Your task to perform on an android device: Open calendar and show me the second week of next month Image 0: 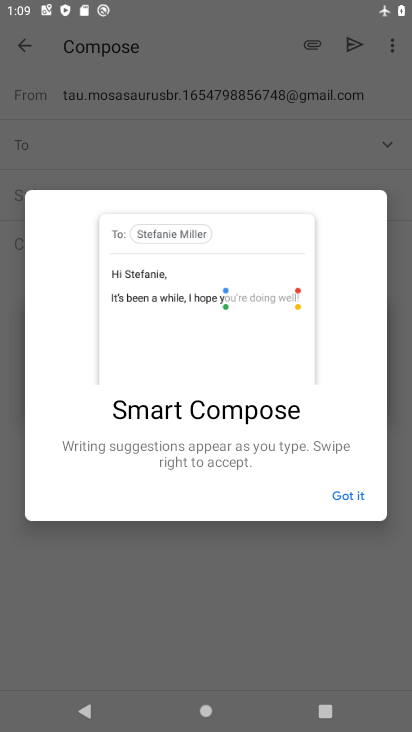
Step 0: press home button
Your task to perform on an android device: Open calendar and show me the second week of next month Image 1: 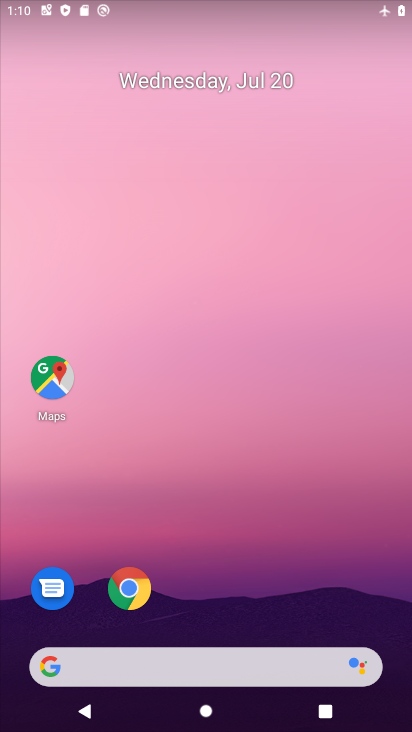
Step 1: drag from (382, 617) to (309, 57)
Your task to perform on an android device: Open calendar and show me the second week of next month Image 2: 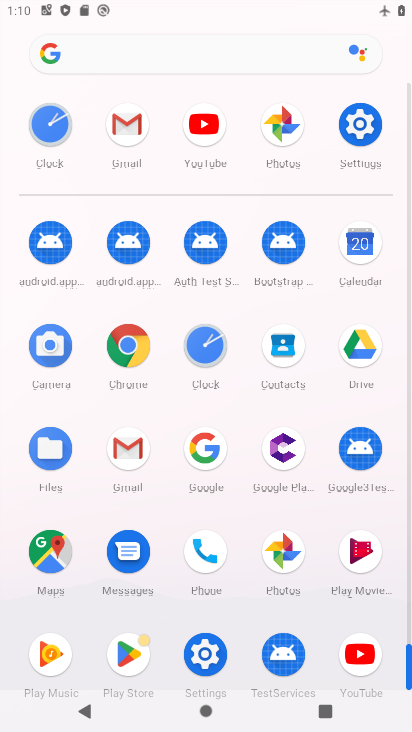
Step 2: click (349, 243)
Your task to perform on an android device: Open calendar and show me the second week of next month Image 3: 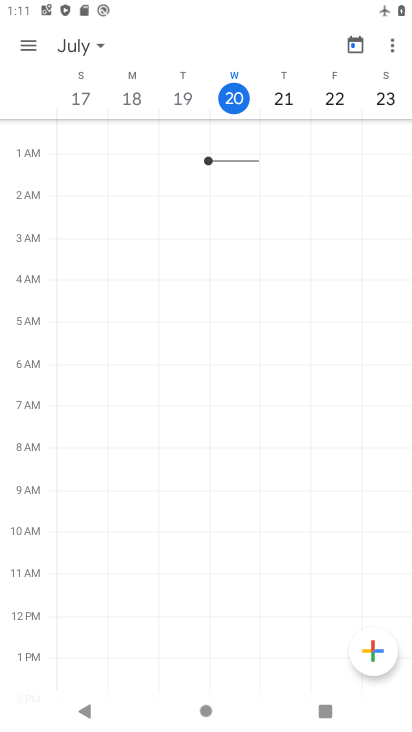
Step 3: click (92, 36)
Your task to perform on an android device: Open calendar and show me the second week of next month Image 4: 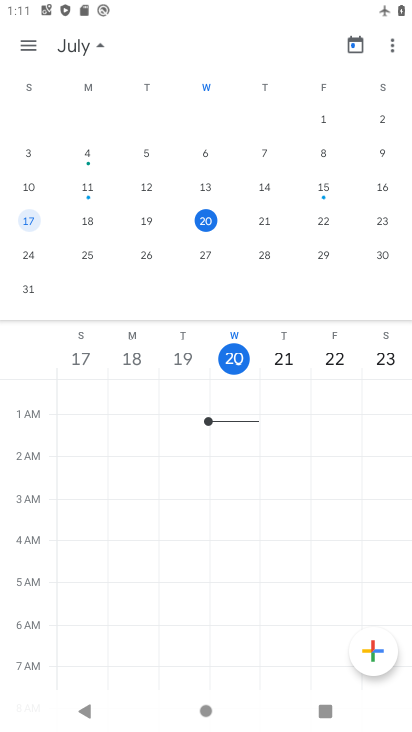
Step 4: drag from (379, 241) to (119, 206)
Your task to perform on an android device: Open calendar and show me the second week of next month Image 5: 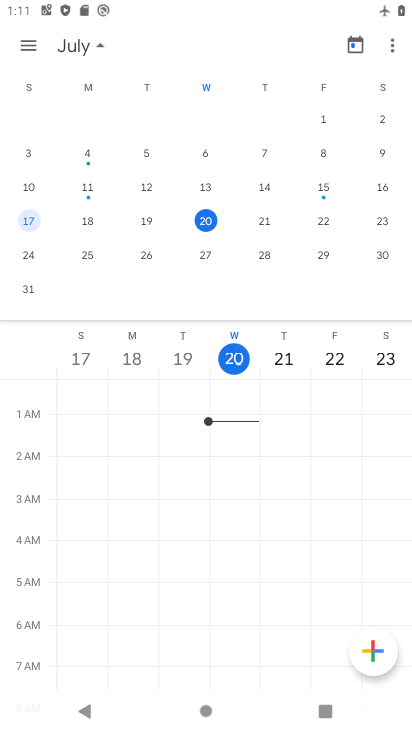
Step 5: drag from (384, 191) to (123, 197)
Your task to perform on an android device: Open calendar and show me the second week of next month Image 6: 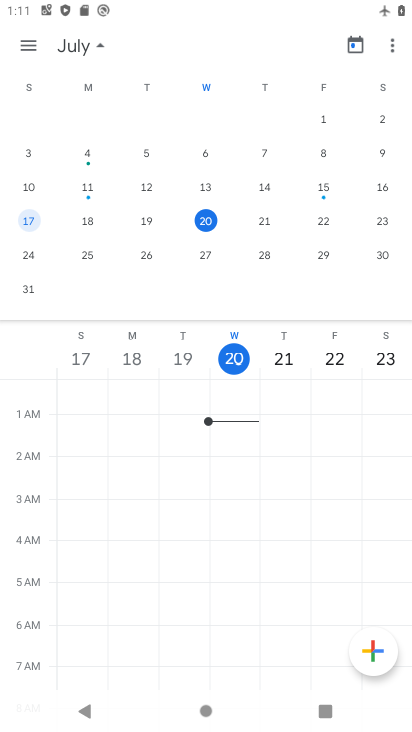
Step 6: drag from (398, 187) to (78, 176)
Your task to perform on an android device: Open calendar and show me the second week of next month Image 7: 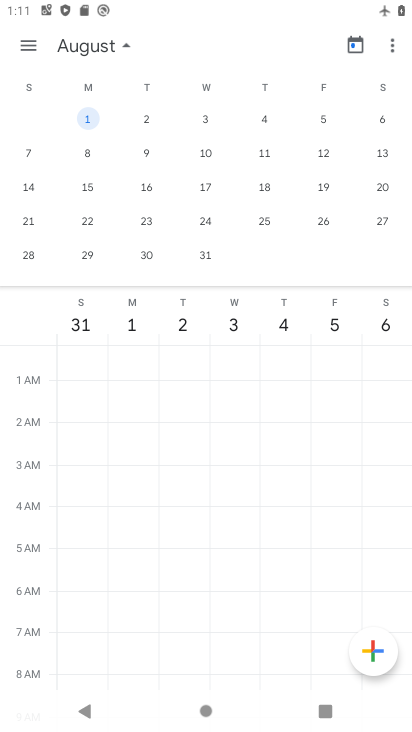
Step 7: click (200, 154)
Your task to perform on an android device: Open calendar and show me the second week of next month Image 8: 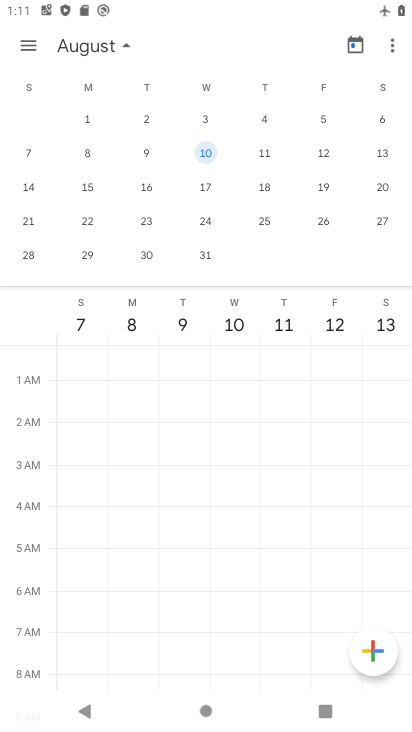
Step 8: task complete